Your task to perform on an android device: Open eBay Image 0: 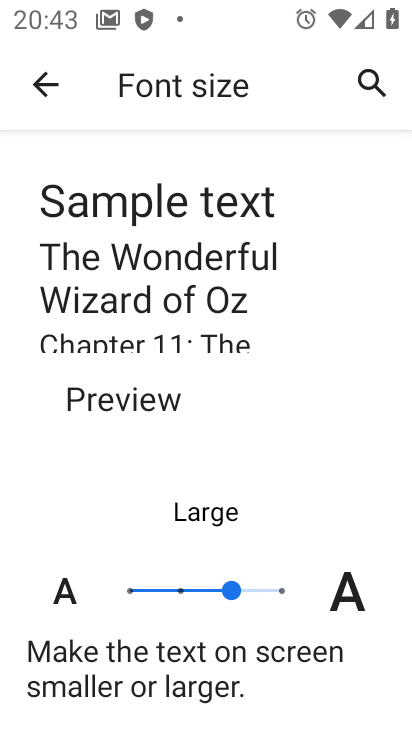
Step 0: press home button
Your task to perform on an android device: Open eBay Image 1: 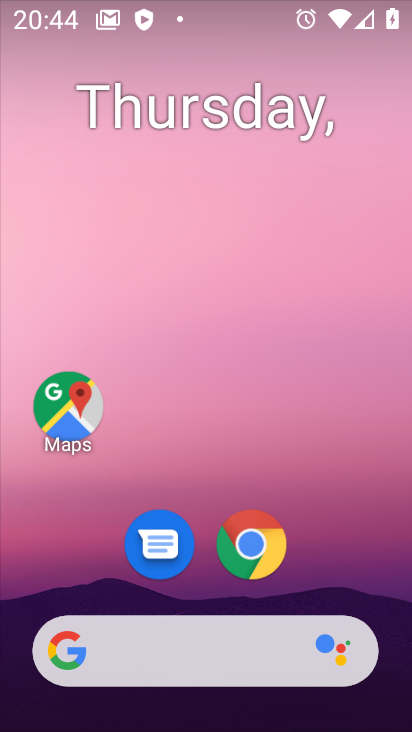
Step 1: click (250, 542)
Your task to perform on an android device: Open eBay Image 2: 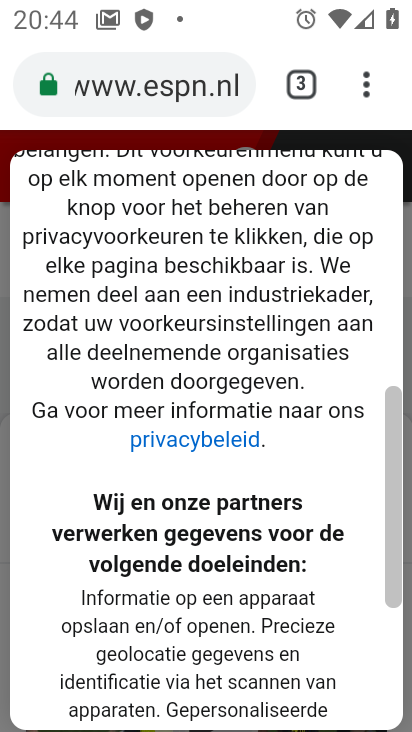
Step 2: click (305, 97)
Your task to perform on an android device: Open eBay Image 3: 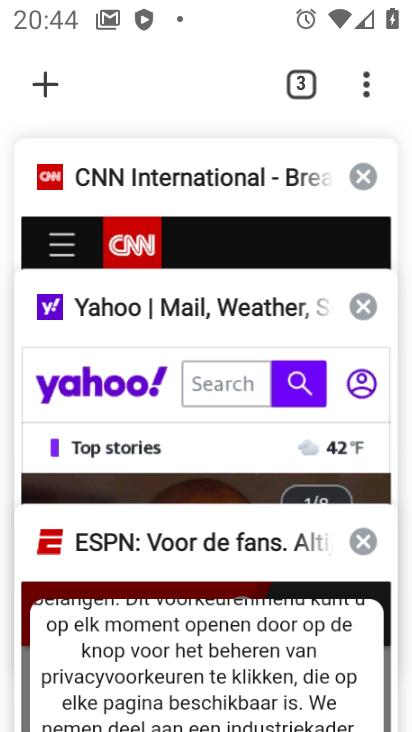
Step 3: click (55, 103)
Your task to perform on an android device: Open eBay Image 4: 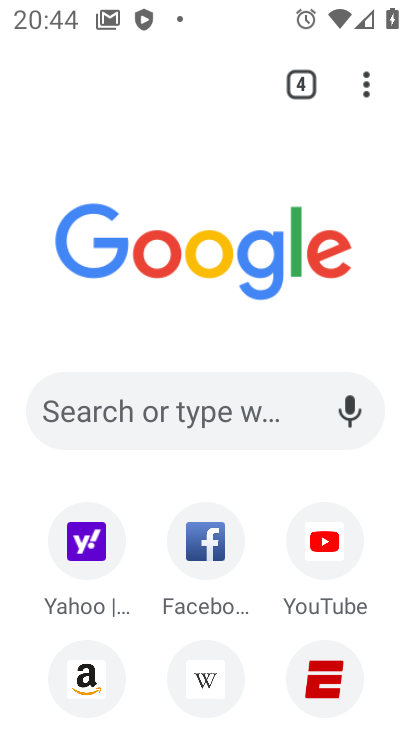
Step 4: click (124, 410)
Your task to perform on an android device: Open eBay Image 5: 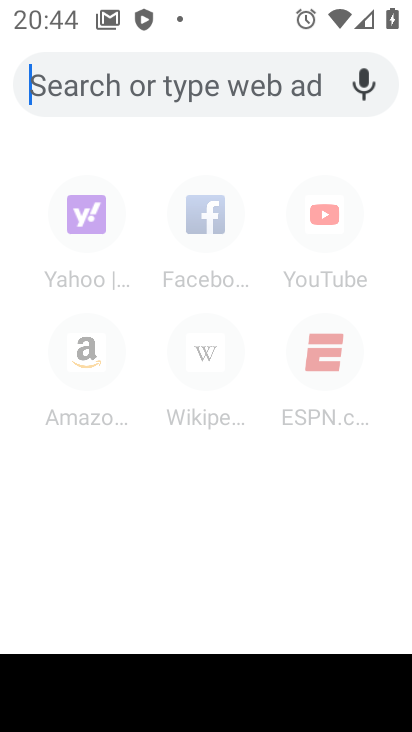
Step 5: type "ebay"
Your task to perform on an android device: Open eBay Image 6: 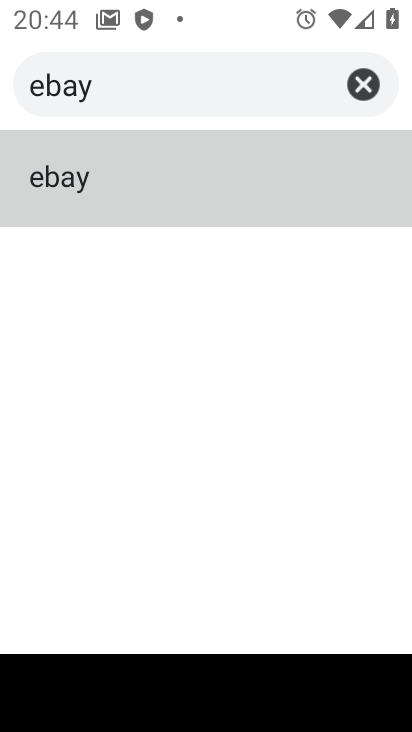
Step 6: click (238, 217)
Your task to perform on an android device: Open eBay Image 7: 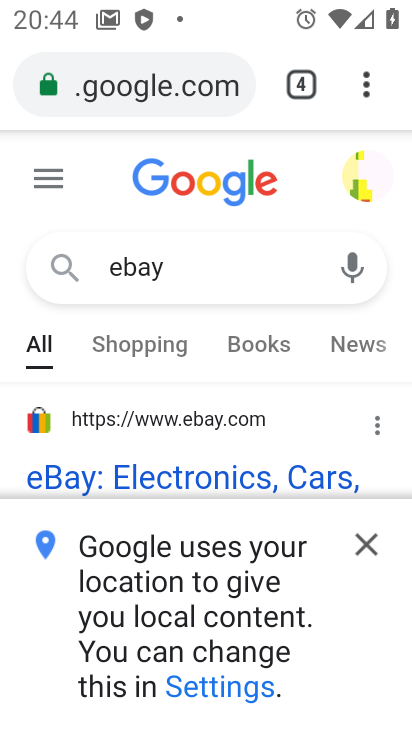
Step 7: task complete